Your task to perform on an android device: clear history in the chrome app Image 0: 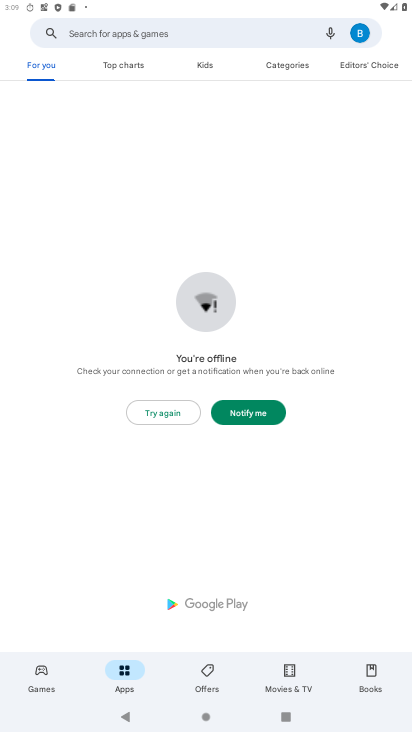
Step 0: press home button
Your task to perform on an android device: clear history in the chrome app Image 1: 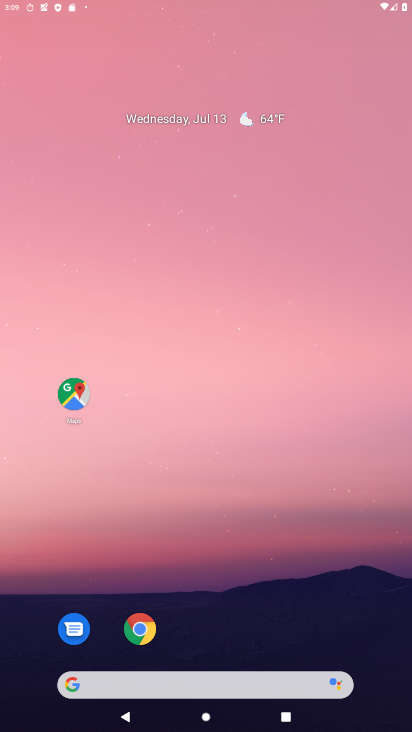
Step 1: drag from (186, 705) to (279, 17)
Your task to perform on an android device: clear history in the chrome app Image 2: 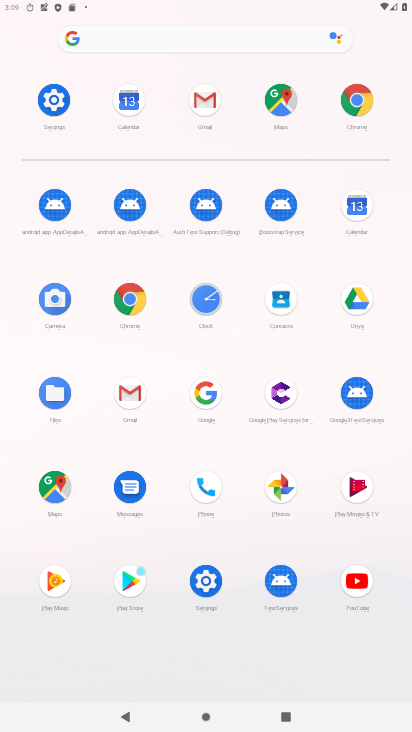
Step 2: click (144, 302)
Your task to perform on an android device: clear history in the chrome app Image 3: 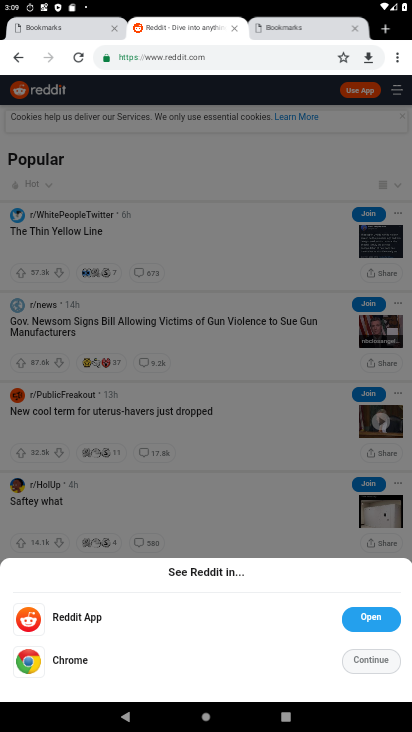
Step 3: drag from (394, 56) to (290, 177)
Your task to perform on an android device: clear history in the chrome app Image 4: 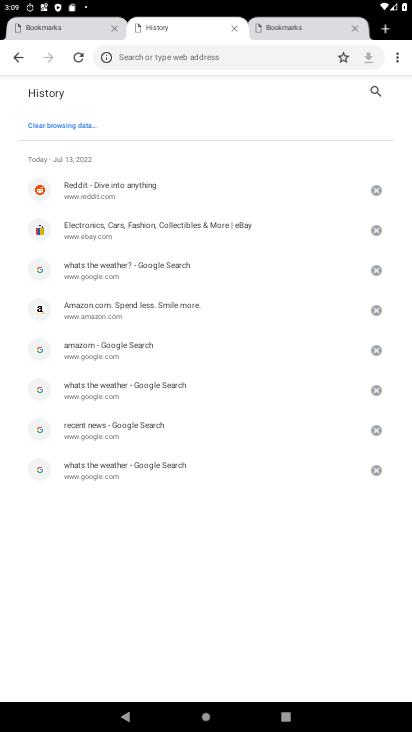
Step 4: click (39, 124)
Your task to perform on an android device: clear history in the chrome app Image 5: 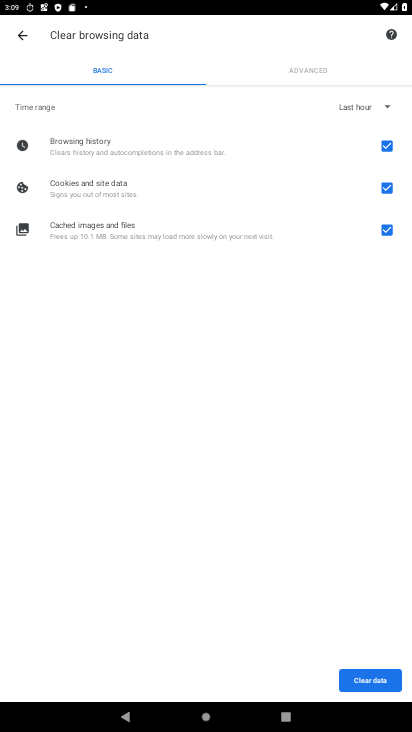
Step 5: click (389, 682)
Your task to perform on an android device: clear history in the chrome app Image 6: 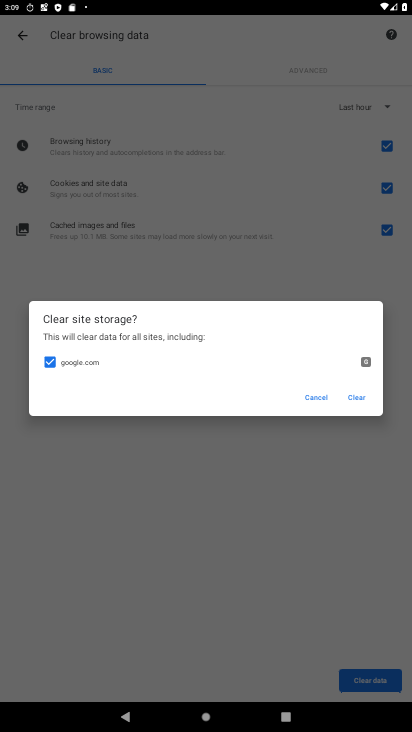
Step 6: click (355, 393)
Your task to perform on an android device: clear history in the chrome app Image 7: 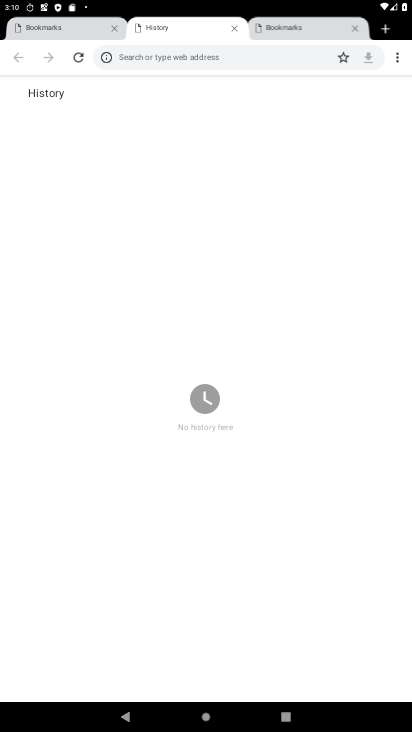
Step 7: task complete